Your task to perform on an android device: Open Google Chrome Image 0: 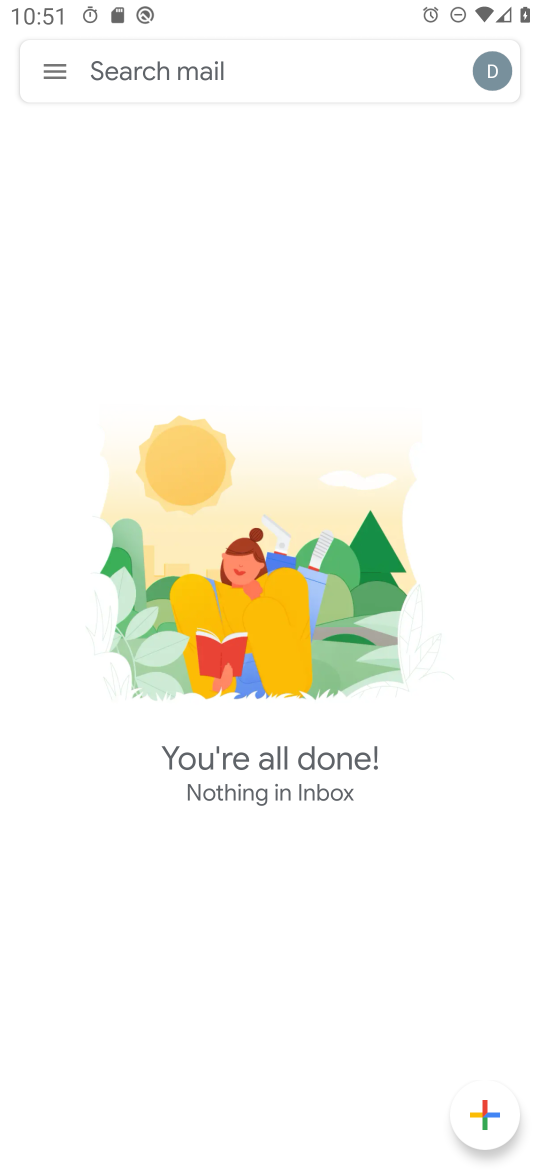
Step 0: press home button
Your task to perform on an android device: Open Google Chrome Image 1: 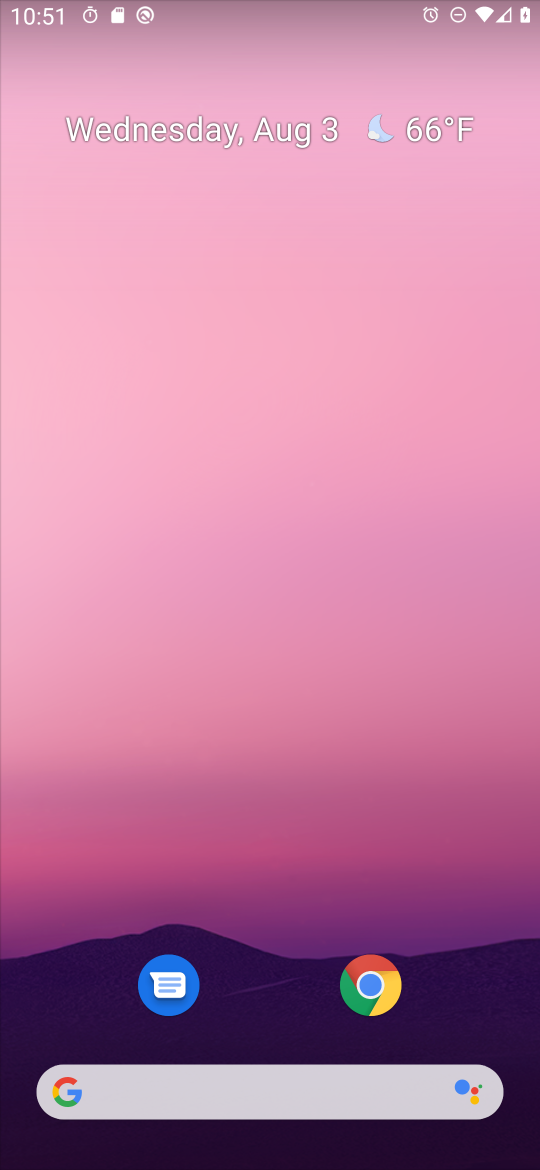
Step 1: click (354, 1003)
Your task to perform on an android device: Open Google Chrome Image 2: 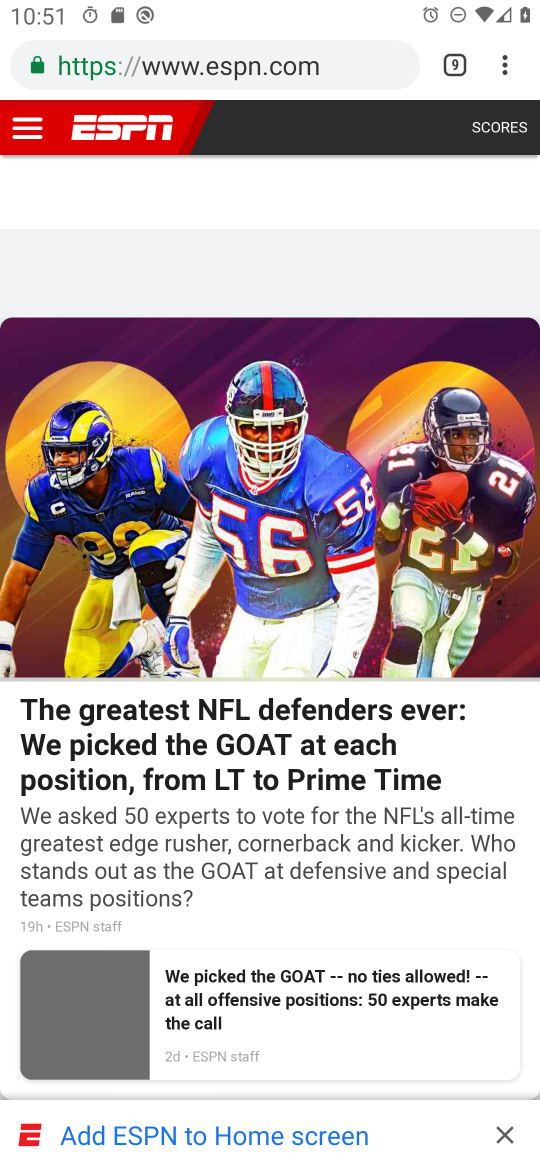
Step 2: task complete